Your task to perform on an android device: turn off notifications settings in the gmail app Image 0: 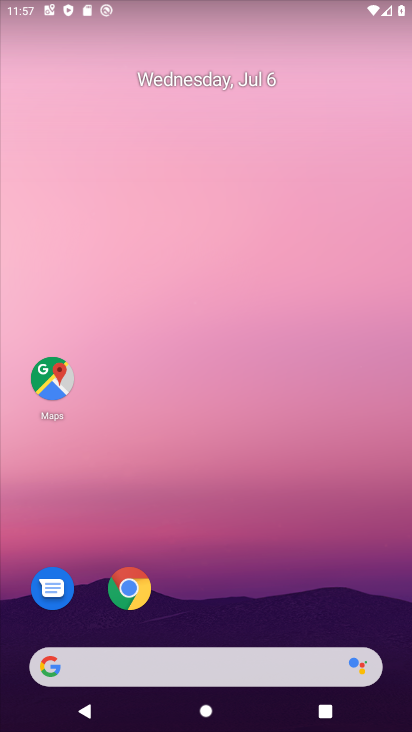
Step 0: drag from (245, 701) to (229, 43)
Your task to perform on an android device: turn off notifications settings in the gmail app Image 1: 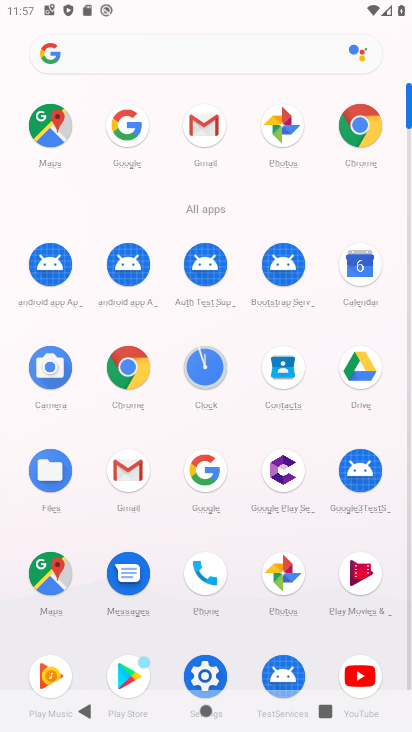
Step 1: click (202, 117)
Your task to perform on an android device: turn off notifications settings in the gmail app Image 2: 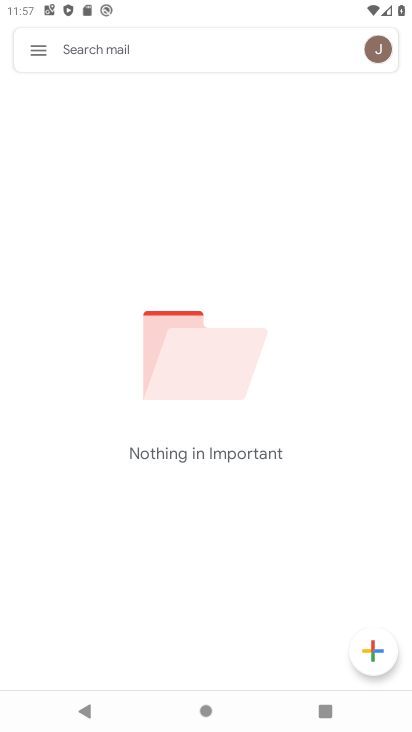
Step 2: click (41, 44)
Your task to perform on an android device: turn off notifications settings in the gmail app Image 3: 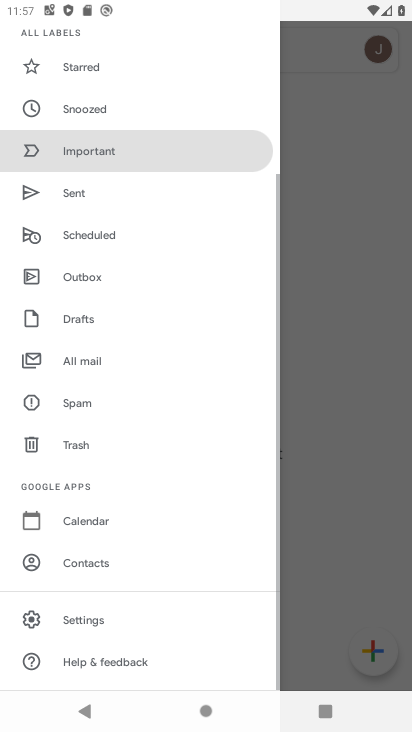
Step 3: click (91, 618)
Your task to perform on an android device: turn off notifications settings in the gmail app Image 4: 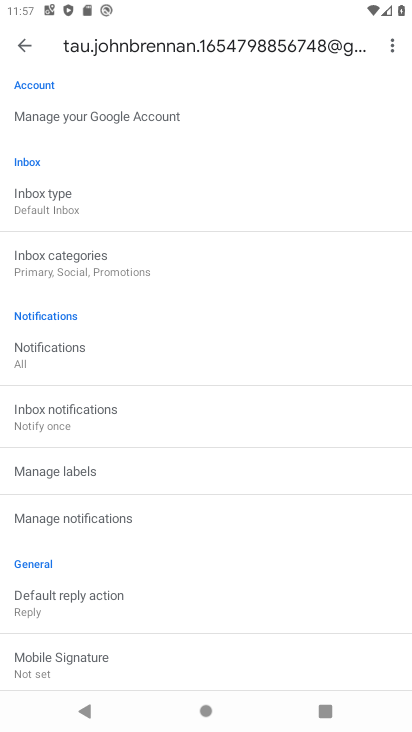
Step 4: click (69, 349)
Your task to perform on an android device: turn off notifications settings in the gmail app Image 5: 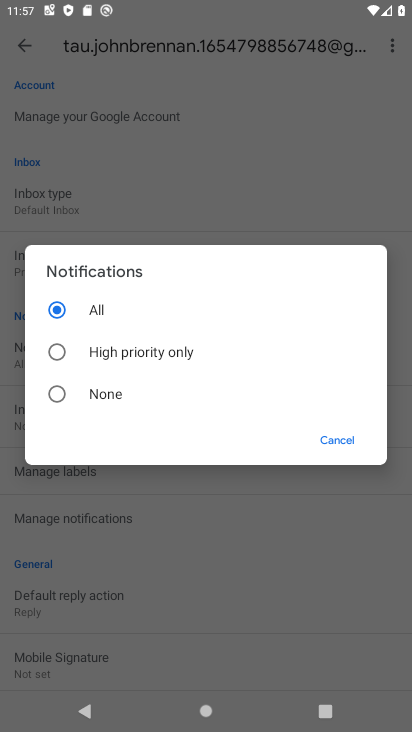
Step 5: click (52, 393)
Your task to perform on an android device: turn off notifications settings in the gmail app Image 6: 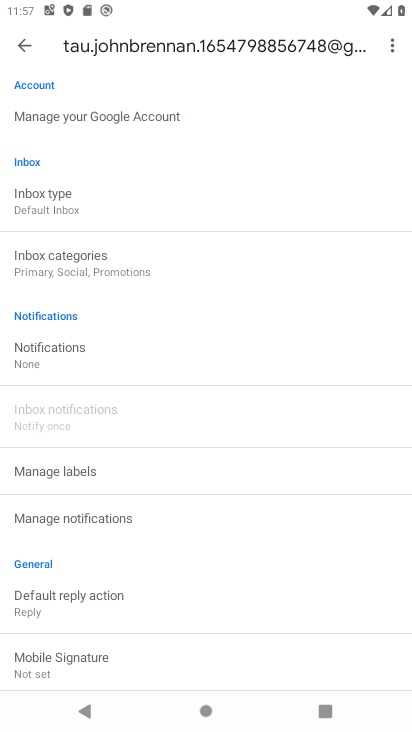
Step 6: task complete